Your task to perform on an android device: read, delete, or share a saved page in the chrome app Image 0: 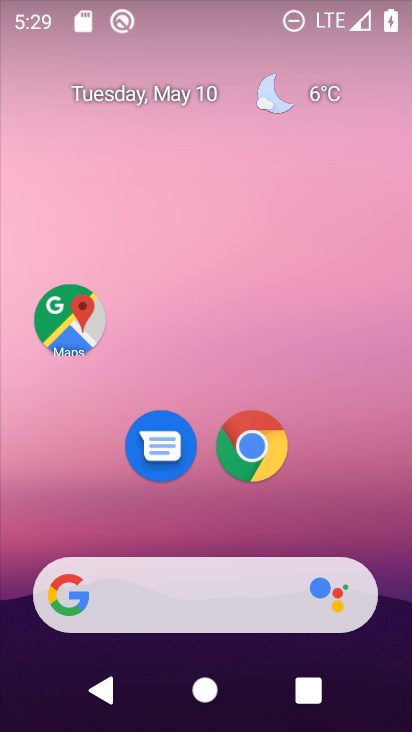
Step 0: click (270, 446)
Your task to perform on an android device: read, delete, or share a saved page in the chrome app Image 1: 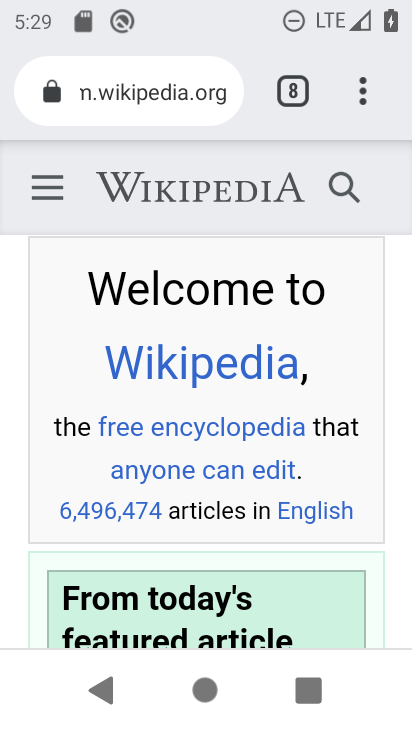
Step 1: click (353, 85)
Your task to perform on an android device: read, delete, or share a saved page in the chrome app Image 2: 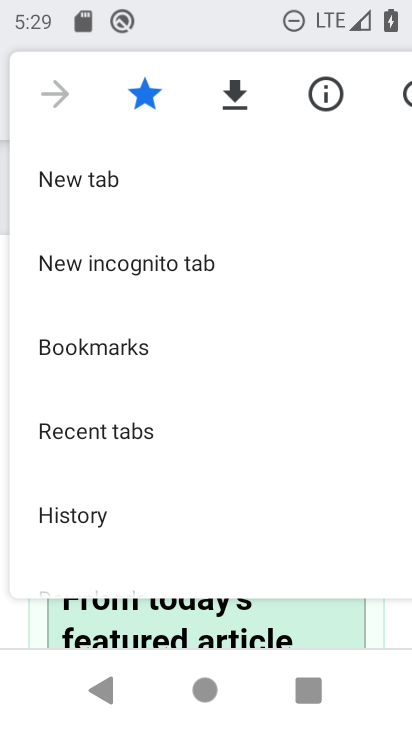
Step 2: drag from (184, 497) to (191, 218)
Your task to perform on an android device: read, delete, or share a saved page in the chrome app Image 3: 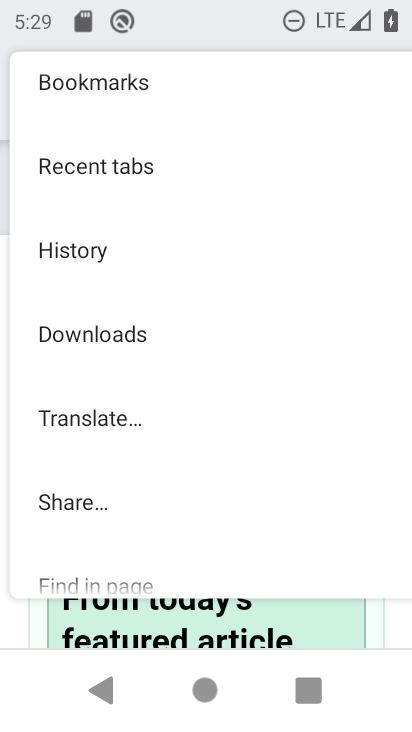
Step 3: click (124, 336)
Your task to perform on an android device: read, delete, or share a saved page in the chrome app Image 4: 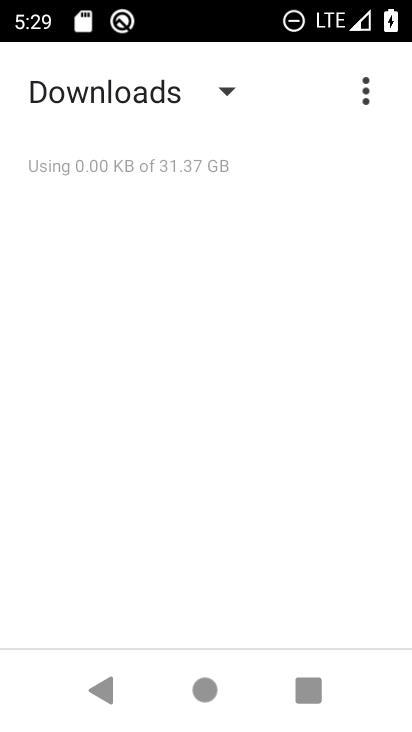
Step 4: click (132, 83)
Your task to perform on an android device: read, delete, or share a saved page in the chrome app Image 5: 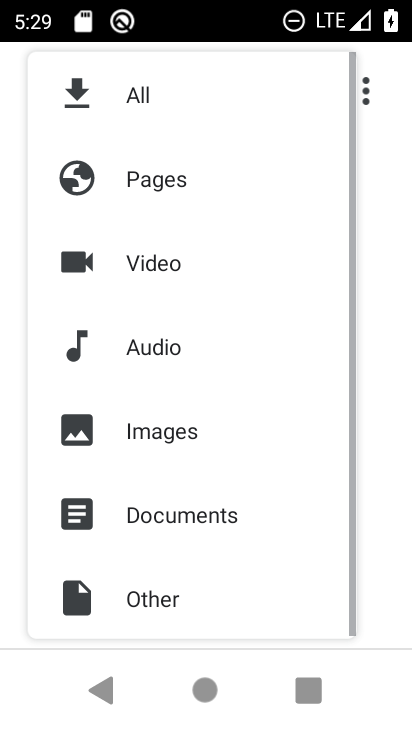
Step 5: click (148, 179)
Your task to perform on an android device: read, delete, or share a saved page in the chrome app Image 6: 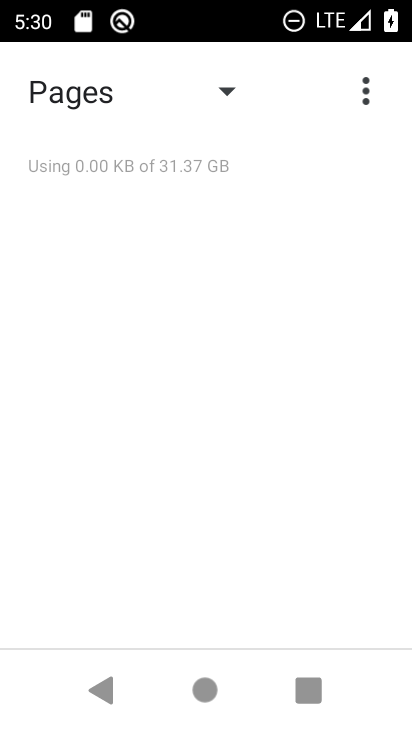
Step 6: task complete